Your task to perform on an android device: turn notification dots off Image 0: 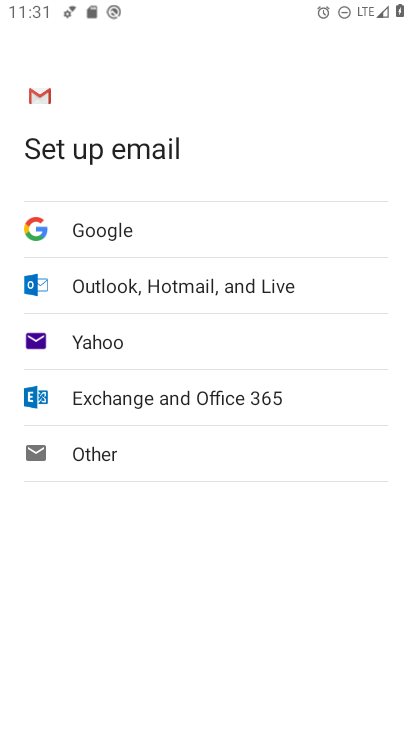
Step 0: press home button
Your task to perform on an android device: turn notification dots off Image 1: 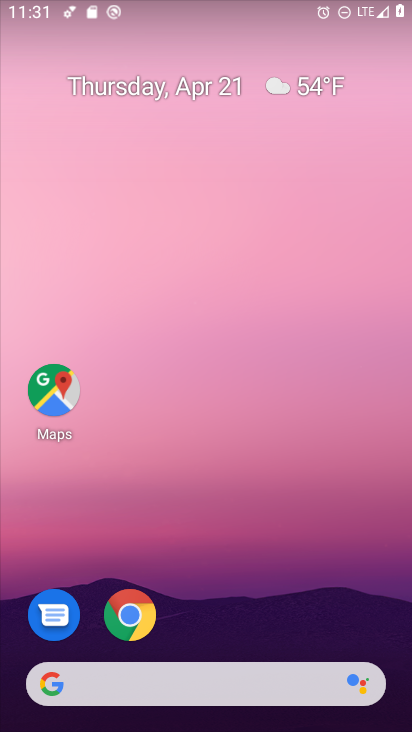
Step 1: drag from (253, 605) to (240, 60)
Your task to perform on an android device: turn notification dots off Image 2: 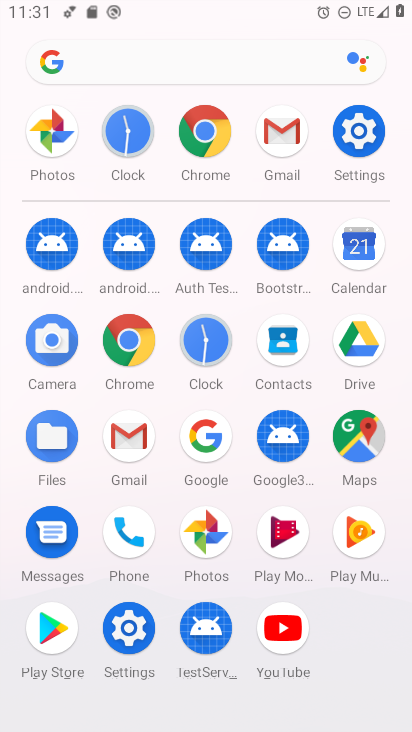
Step 2: click (136, 618)
Your task to perform on an android device: turn notification dots off Image 3: 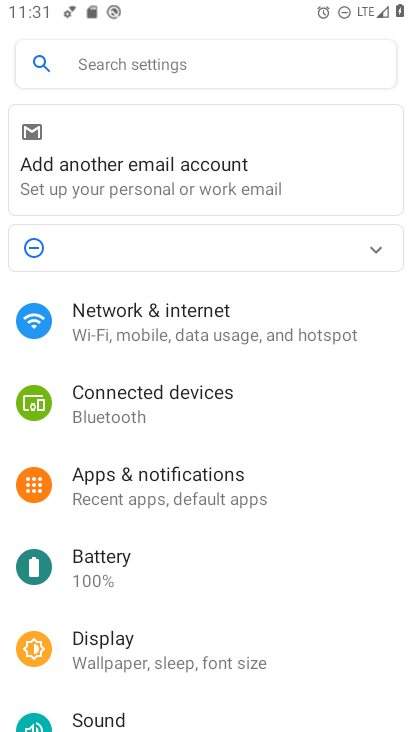
Step 3: click (148, 491)
Your task to perform on an android device: turn notification dots off Image 4: 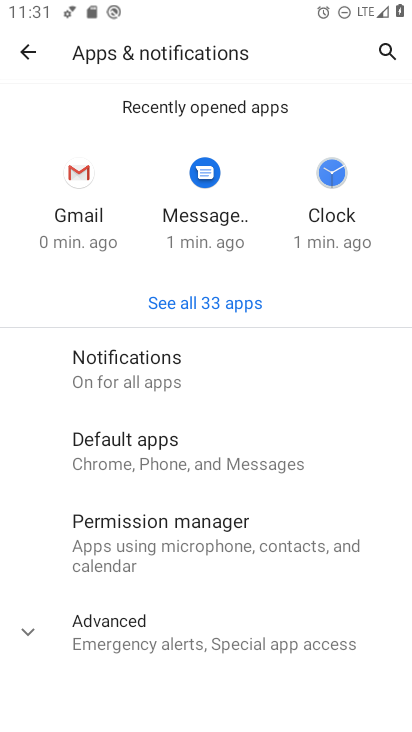
Step 4: click (216, 360)
Your task to perform on an android device: turn notification dots off Image 5: 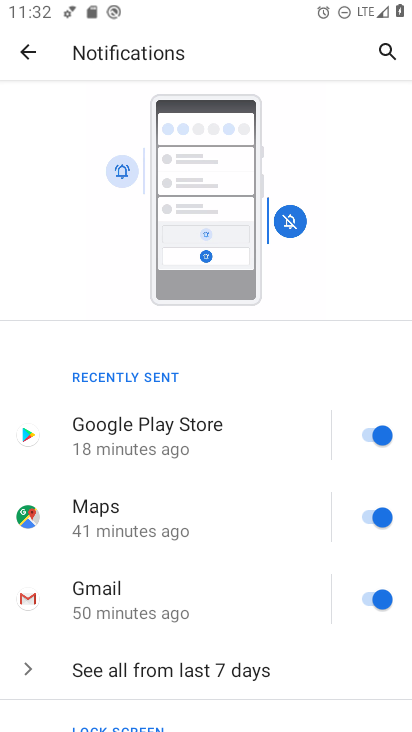
Step 5: drag from (267, 634) to (280, 361)
Your task to perform on an android device: turn notification dots off Image 6: 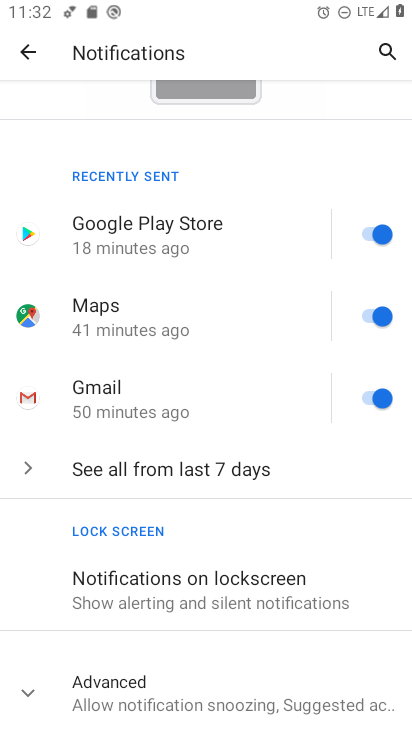
Step 6: drag from (291, 631) to (249, 487)
Your task to perform on an android device: turn notification dots off Image 7: 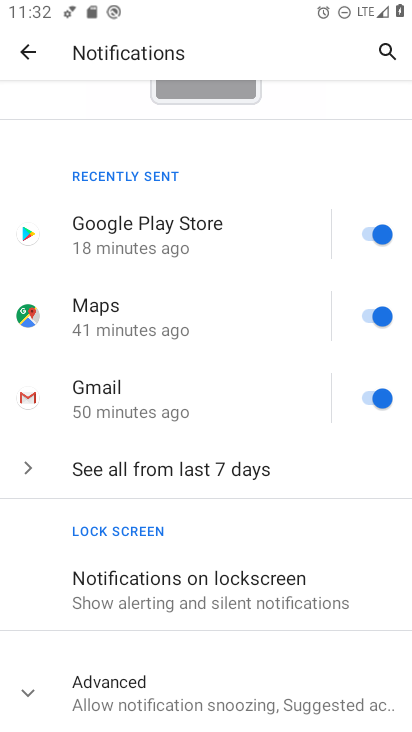
Step 7: drag from (220, 653) to (212, 590)
Your task to perform on an android device: turn notification dots off Image 8: 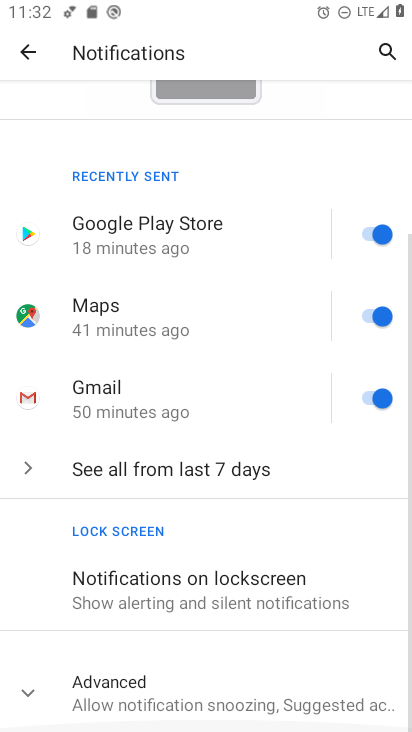
Step 8: click (220, 678)
Your task to perform on an android device: turn notification dots off Image 9: 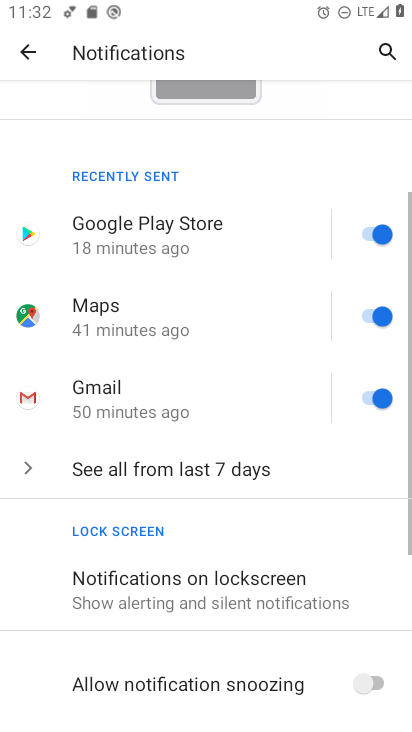
Step 9: drag from (219, 679) to (227, 554)
Your task to perform on an android device: turn notification dots off Image 10: 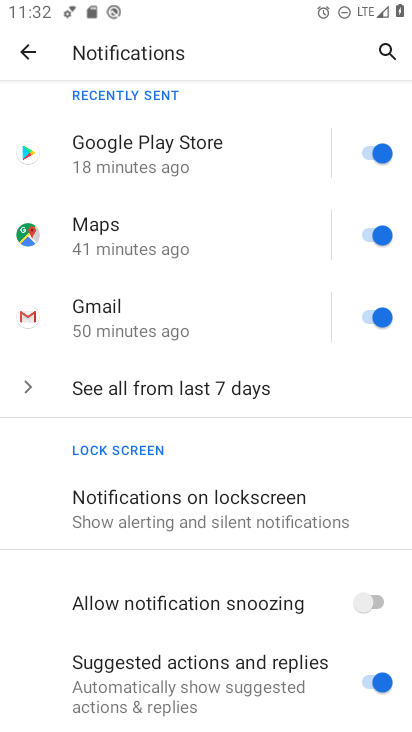
Step 10: drag from (256, 657) to (283, 549)
Your task to perform on an android device: turn notification dots off Image 11: 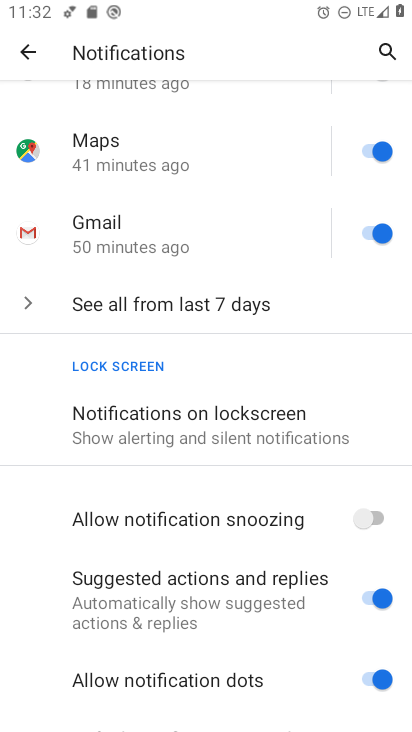
Step 11: click (391, 685)
Your task to perform on an android device: turn notification dots off Image 12: 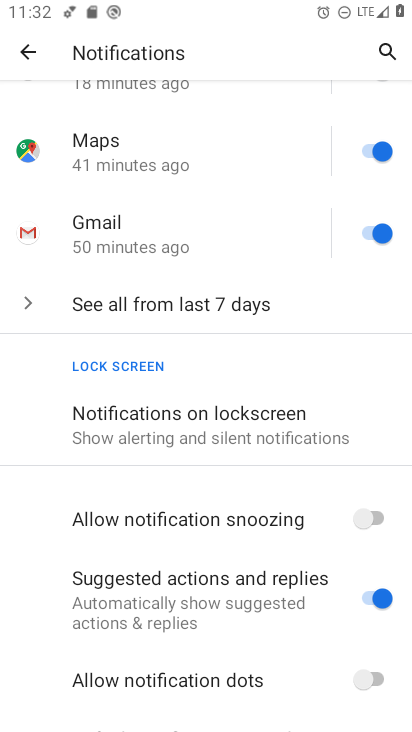
Step 12: task complete